Your task to perform on an android device: turn off airplane mode Image 0: 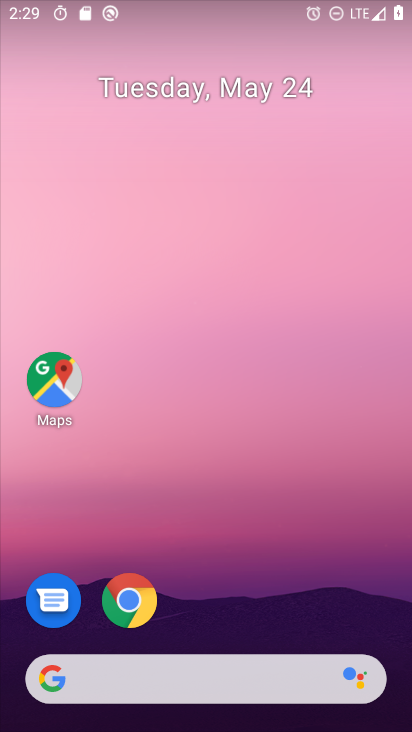
Step 0: drag from (294, 569) to (295, 78)
Your task to perform on an android device: turn off airplane mode Image 1: 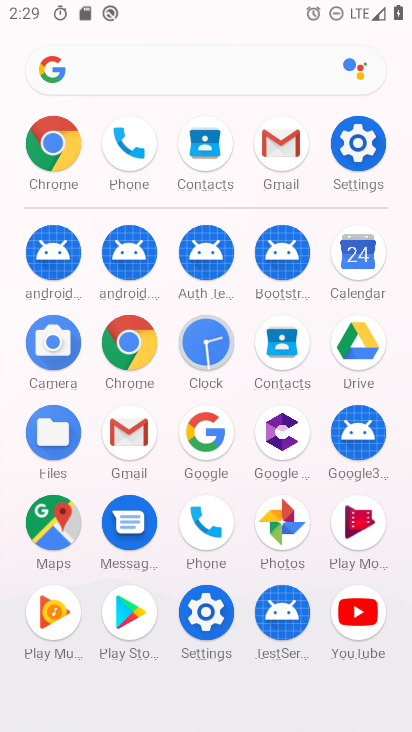
Step 1: click (370, 162)
Your task to perform on an android device: turn off airplane mode Image 2: 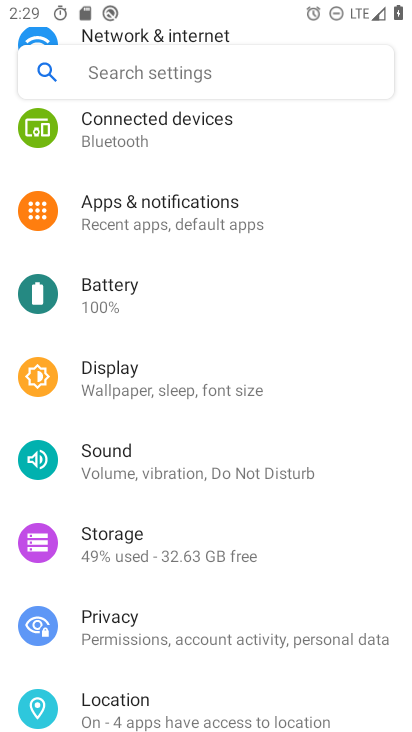
Step 2: drag from (225, 187) to (220, 594)
Your task to perform on an android device: turn off airplane mode Image 3: 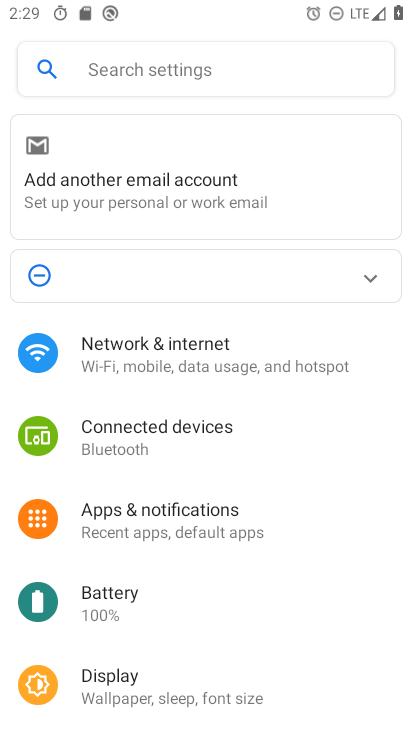
Step 3: drag from (250, 340) to (238, 543)
Your task to perform on an android device: turn off airplane mode Image 4: 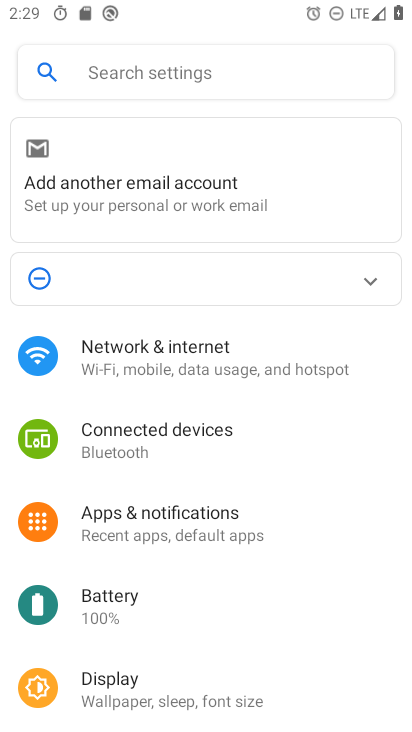
Step 4: click (256, 374)
Your task to perform on an android device: turn off airplane mode Image 5: 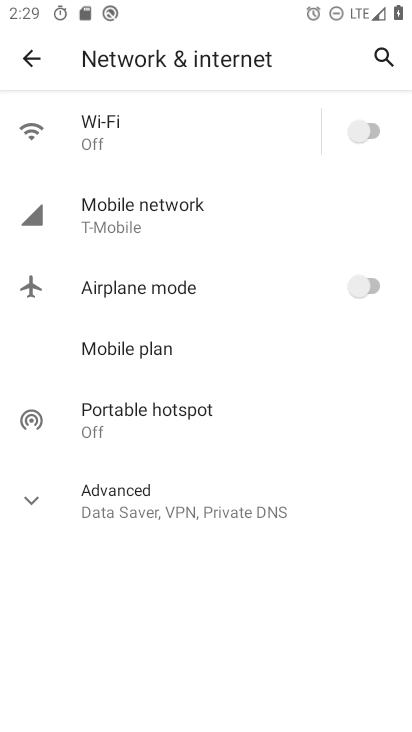
Step 5: task complete